Your task to perform on an android device: see creations saved in the google photos Image 0: 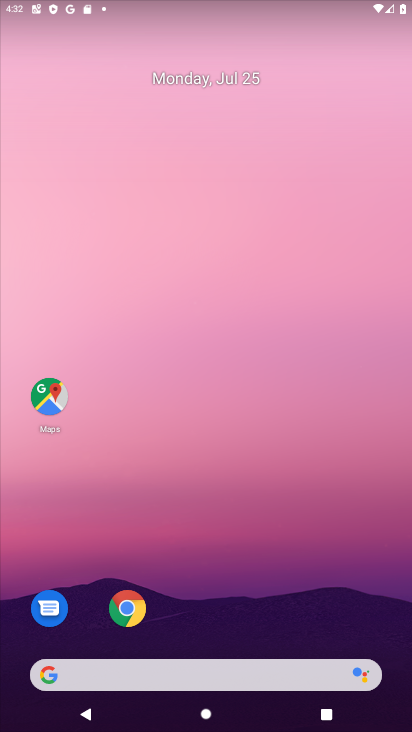
Step 0: press home button
Your task to perform on an android device: see creations saved in the google photos Image 1: 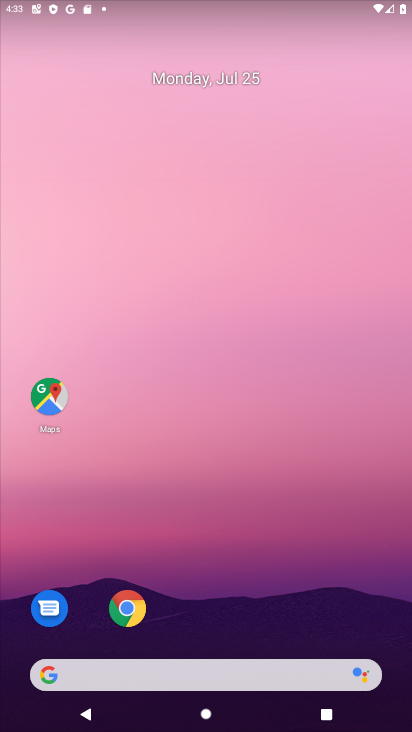
Step 1: drag from (204, 631) to (240, 66)
Your task to perform on an android device: see creations saved in the google photos Image 2: 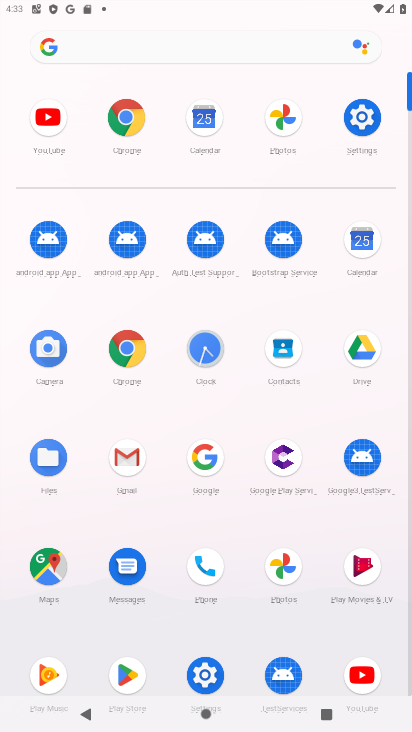
Step 2: click (278, 112)
Your task to perform on an android device: see creations saved in the google photos Image 3: 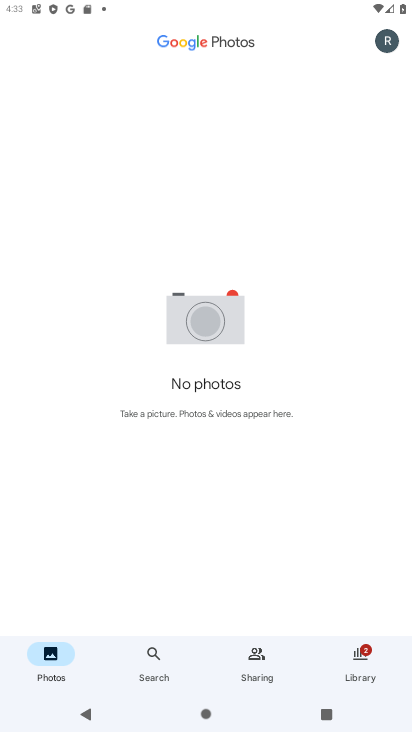
Step 3: click (142, 652)
Your task to perform on an android device: see creations saved in the google photos Image 4: 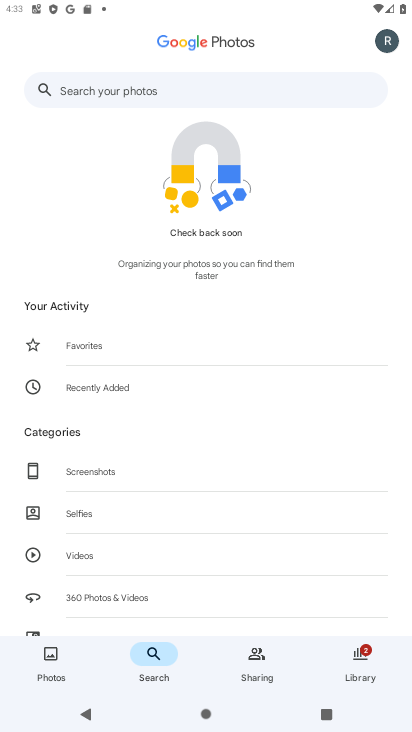
Step 4: drag from (120, 561) to (197, 136)
Your task to perform on an android device: see creations saved in the google photos Image 5: 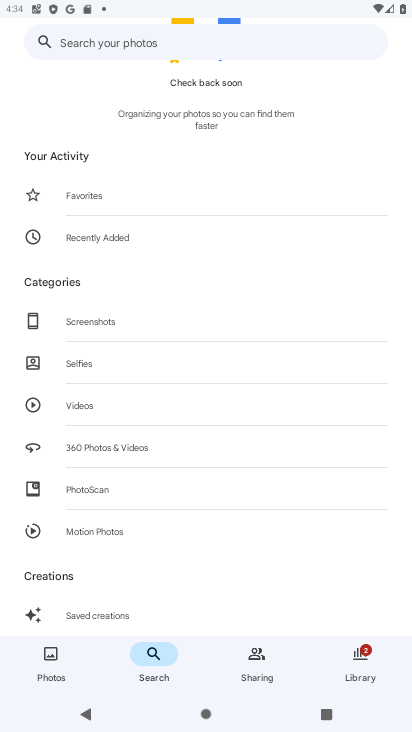
Step 5: click (122, 606)
Your task to perform on an android device: see creations saved in the google photos Image 6: 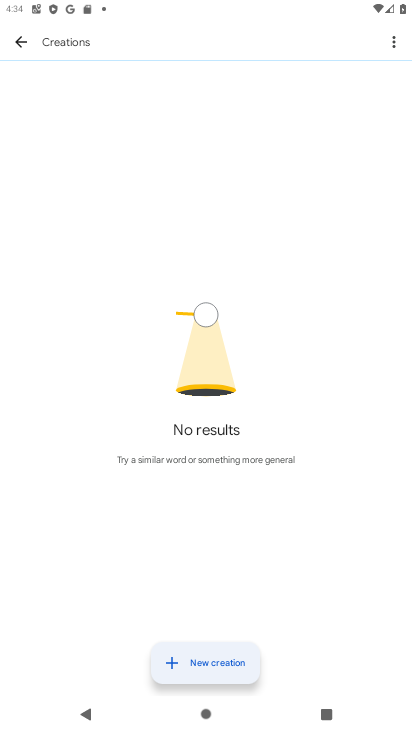
Step 6: task complete